Your task to perform on an android device: Search for "corsair k70" on newegg.com, select the first entry, add it to the cart, then select checkout. Image 0: 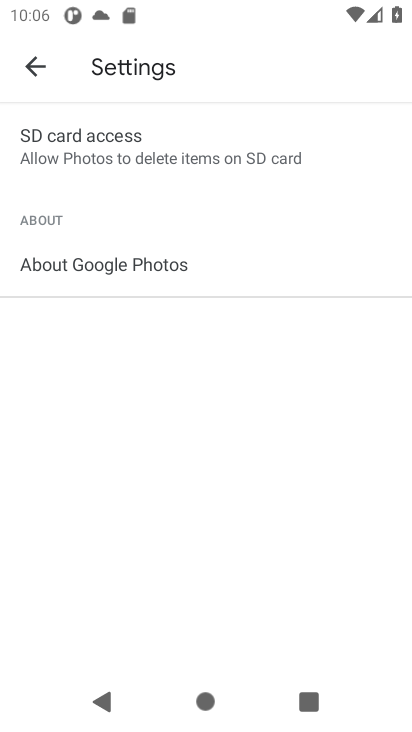
Step 0: press home button
Your task to perform on an android device: Search for "corsair k70" on newegg.com, select the first entry, add it to the cart, then select checkout. Image 1: 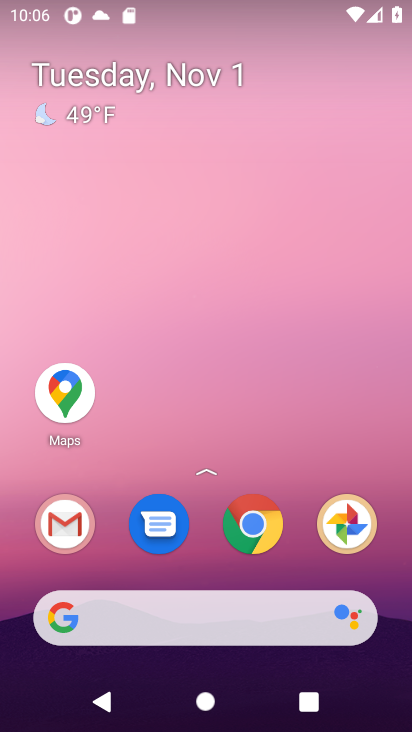
Step 1: click (87, 617)
Your task to perform on an android device: Search for "corsair k70" on newegg.com, select the first entry, add it to the cart, then select checkout. Image 2: 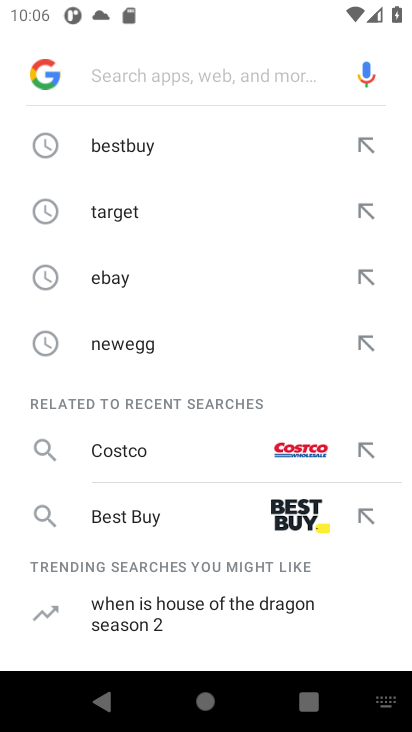
Step 2: type "newegg.com"
Your task to perform on an android device: Search for "corsair k70" on newegg.com, select the first entry, add it to the cart, then select checkout. Image 3: 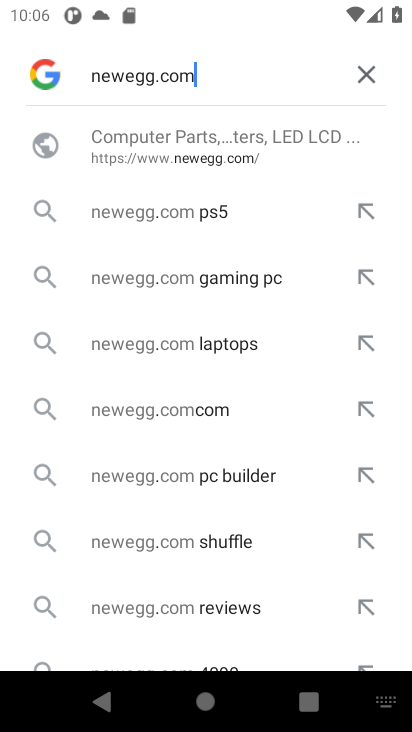
Step 3: press enter
Your task to perform on an android device: Search for "corsair k70" on newegg.com, select the first entry, add it to the cart, then select checkout. Image 4: 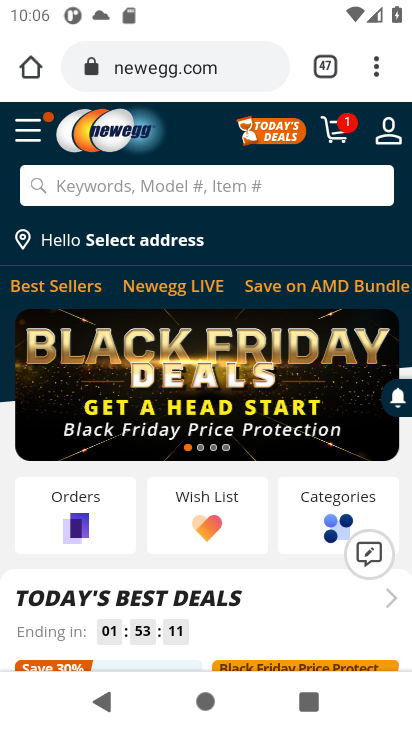
Step 4: click (58, 177)
Your task to perform on an android device: Search for "corsair k70" on newegg.com, select the first entry, add it to the cart, then select checkout. Image 5: 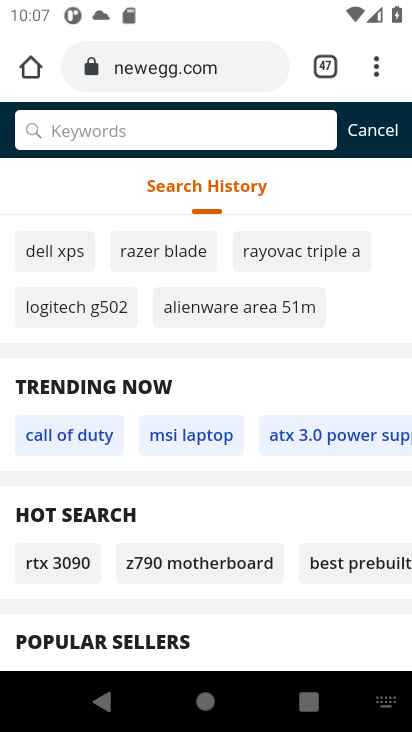
Step 5: type "corsair k70"
Your task to perform on an android device: Search for "corsair k70" on newegg.com, select the first entry, add it to the cart, then select checkout. Image 6: 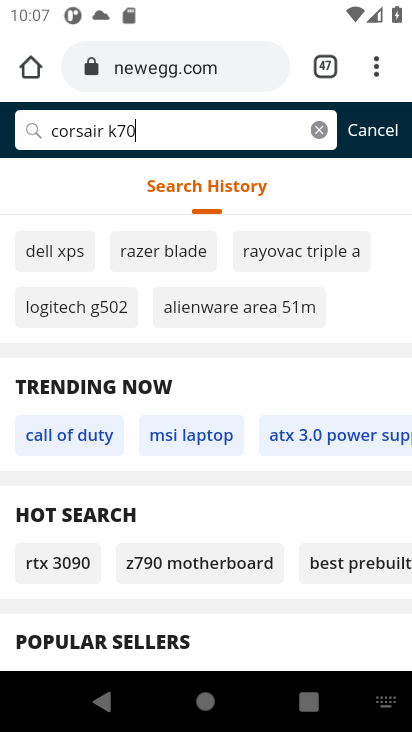
Step 6: press enter
Your task to perform on an android device: Search for "corsair k70" on newegg.com, select the first entry, add it to the cart, then select checkout. Image 7: 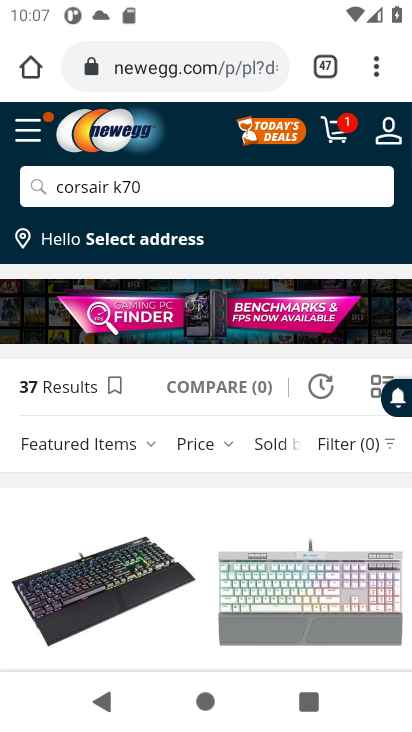
Step 7: drag from (195, 533) to (193, 229)
Your task to perform on an android device: Search for "corsair k70" on newegg.com, select the first entry, add it to the cart, then select checkout. Image 8: 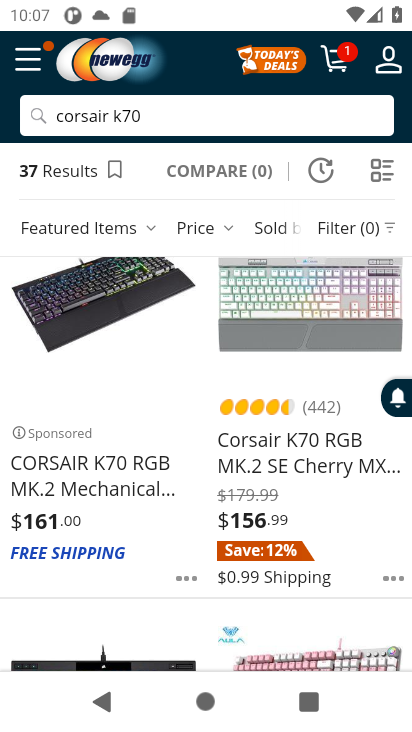
Step 8: click (94, 465)
Your task to perform on an android device: Search for "corsair k70" on newegg.com, select the first entry, add it to the cart, then select checkout. Image 9: 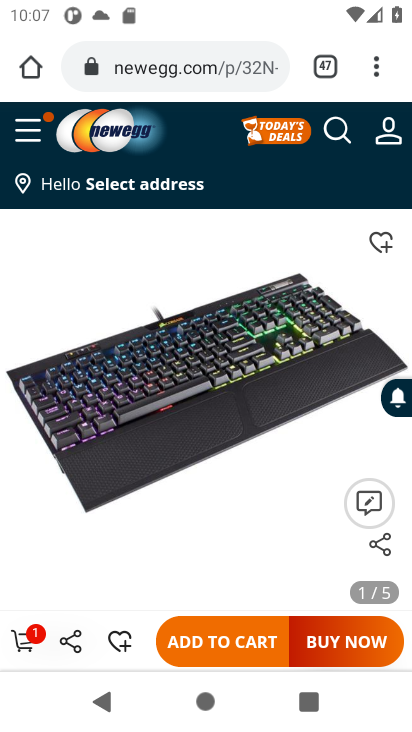
Step 9: drag from (195, 529) to (195, 282)
Your task to perform on an android device: Search for "corsair k70" on newegg.com, select the first entry, add it to the cart, then select checkout. Image 10: 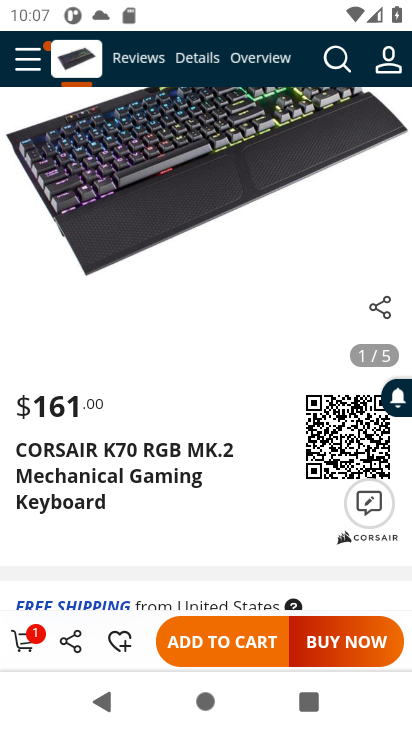
Step 10: click (218, 637)
Your task to perform on an android device: Search for "corsair k70" on newegg.com, select the first entry, add it to the cart, then select checkout. Image 11: 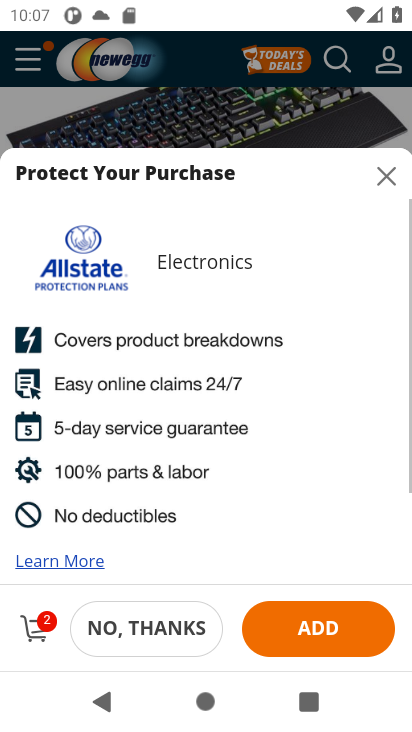
Step 11: click (141, 627)
Your task to perform on an android device: Search for "corsair k70" on newegg.com, select the first entry, add it to the cart, then select checkout. Image 12: 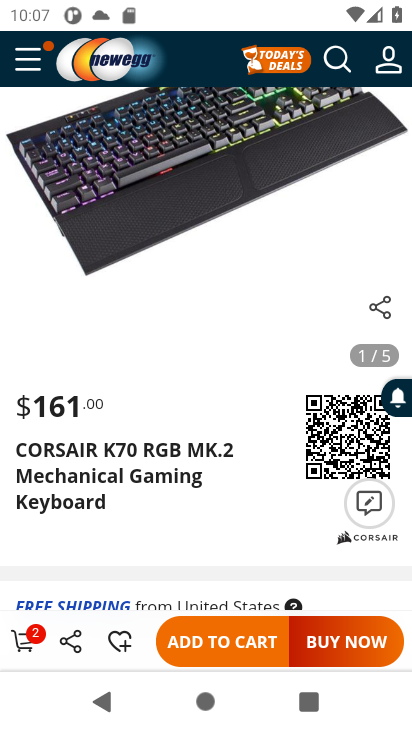
Step 12: click (24, 641)
Your task to perform on an android device: Search for "corsair k70" on newegg.com, select the first entry, add it to the cart, then select checkout. Image 13: 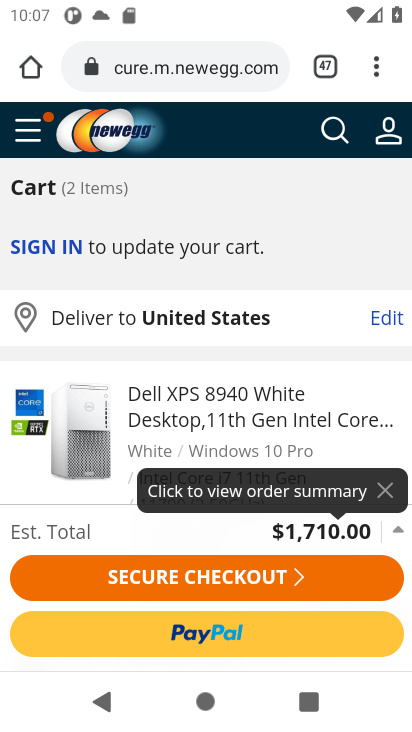
Step 13: click (161, 590)
Your task to perform on an android device: Search for "corsair k70" on newegg.com, select the first entry, add it to the cart, then select checkout. Image 14: 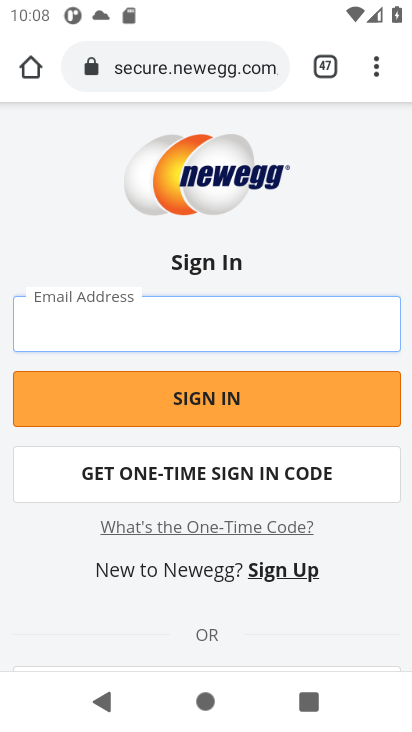
Step 14: task complete